Your task to perform on an android device: Show me popular games on the Play Store Image 0: 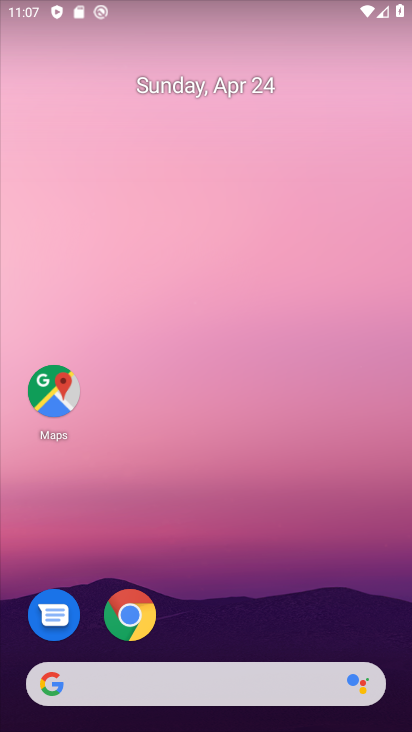
Step 0: drag from (265, 601) to (262, 0)
Your task to perform on an android device: Show me popular games on the Play Store Image 1: 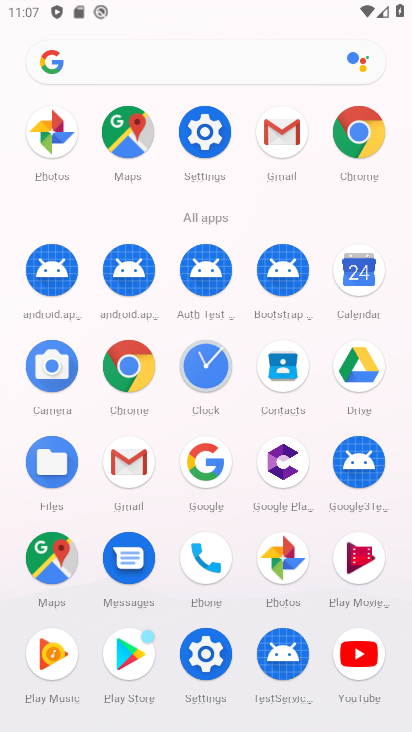
Step 1: click (124, 647)
Your task to perform on an android device: Show me popular games on the Play Store Image 2: 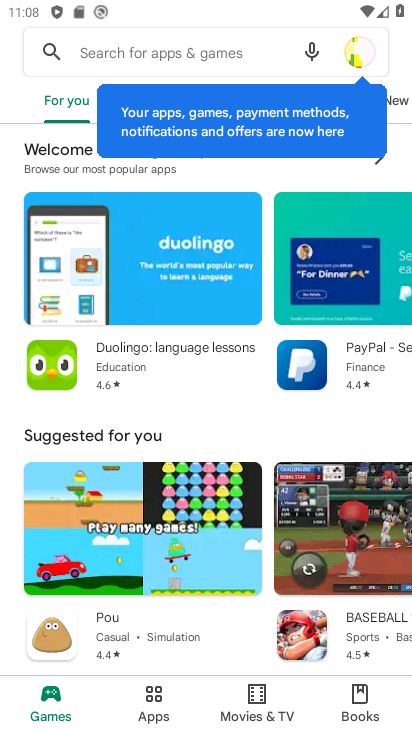
Step 2: click (357, 135)
Your task to perform on an android device: Show me popular games on the Play Store Image 3: 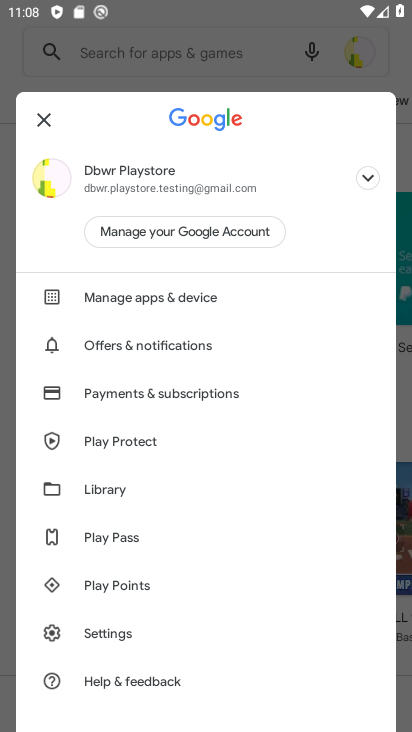
Step 3: click (43, 122)
Your task to perform on an android device: Show me popular games on the Play Store Image 4: 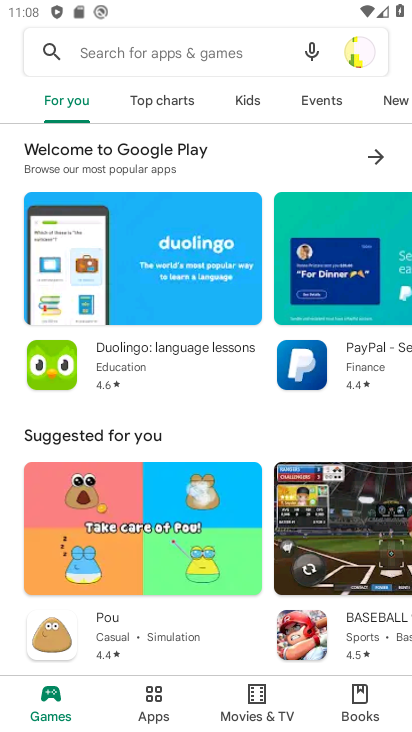
Step 4: task complete